Your task to perform on an android device: Open display settings Image 0: 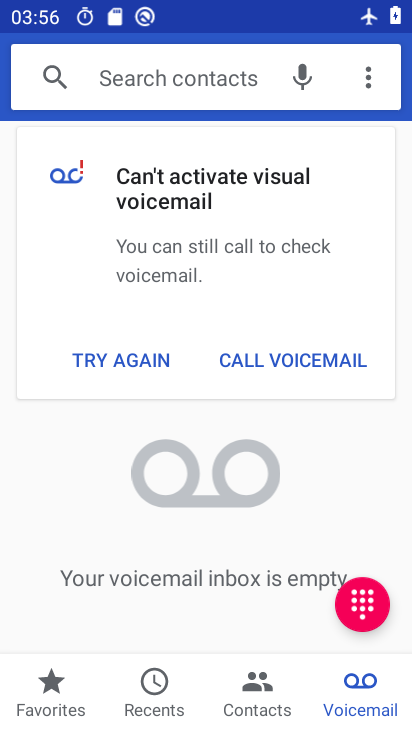
Step 0: press home button
Your task to perform on an android device: Open display settings Image 1: 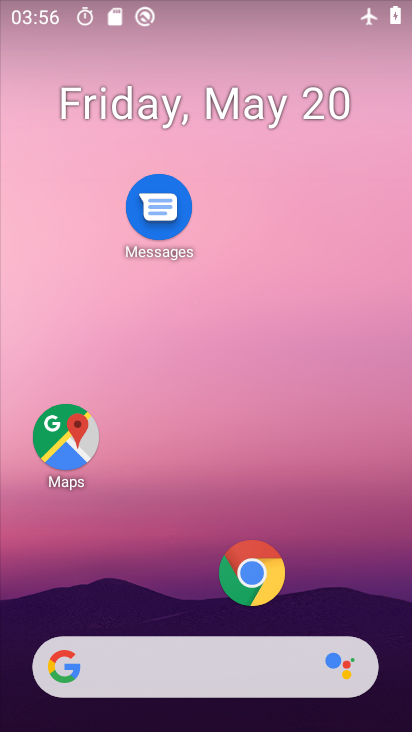
Step 1: drag from (186, 607) to (218, 224)
Your task to perform on an android device: Open display settings Image 2: 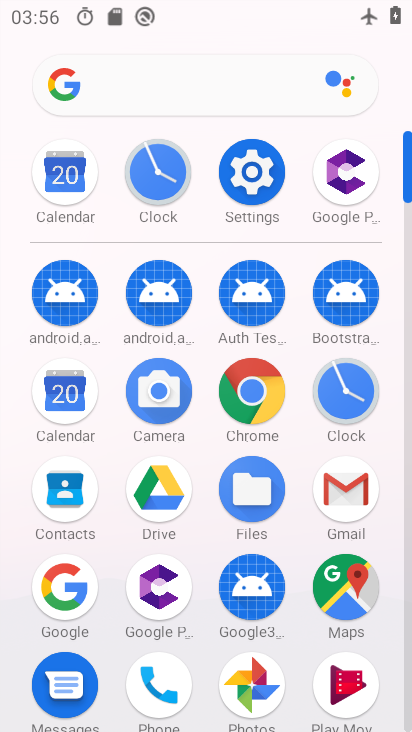
Step 2: click (249, 176)
Your task to perform on an android device: Open display settings Image 3: 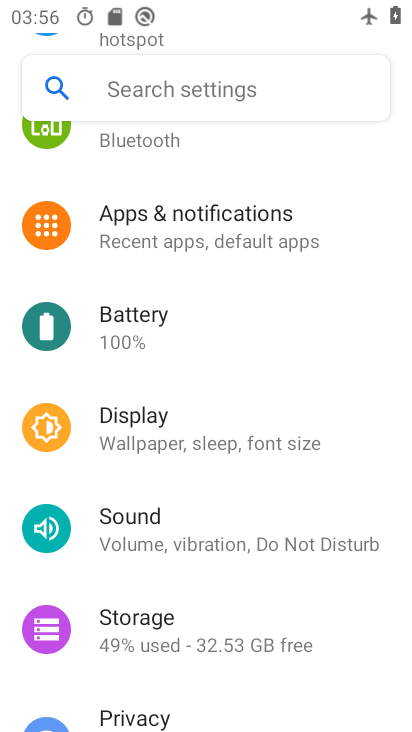
Step 3: drag from (249, 176) to (236, 515)
Your task to perform on an android device: Open display settings Image 4: 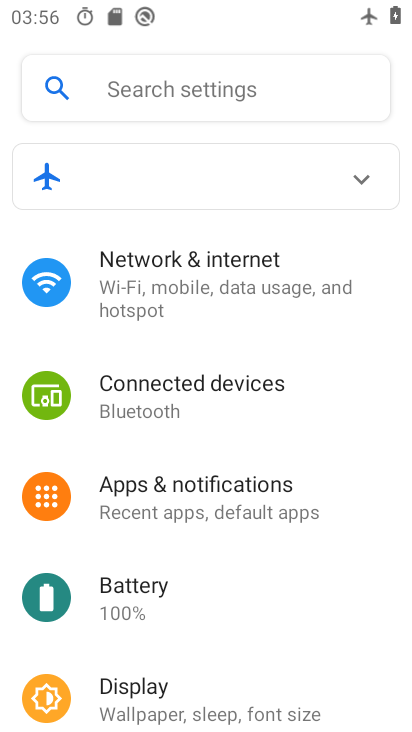
Step 4: click (157, 680)
Your task to perform on an android device: Open display settings Image 5: 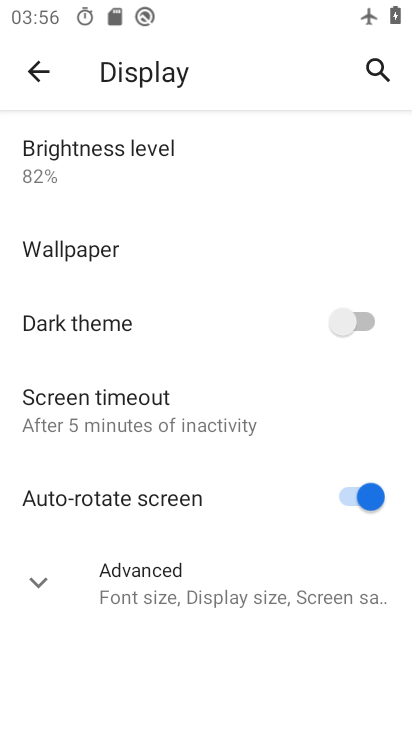
Step 5: task complete